Your task to perform on an android device: set the stopwatch Image 0: 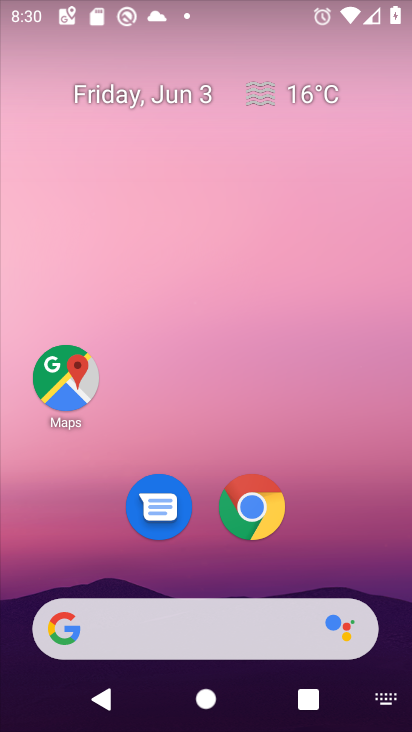
Step 0: drag from (345, 542) to (150, 35)
Your task to perform on an android device: set the stopwatch Image 1: 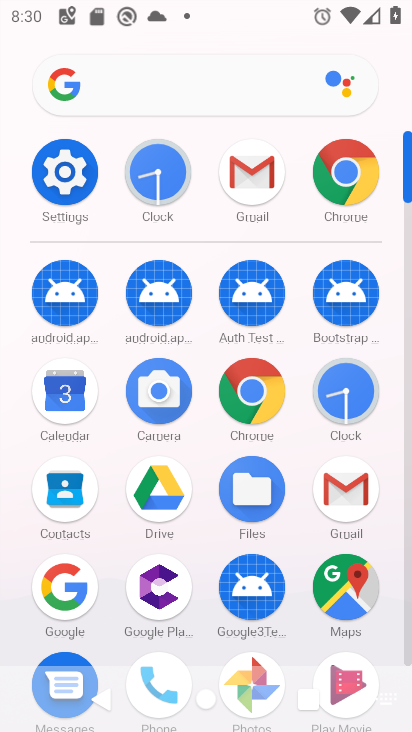
Step 1: click (79, 176)
Your task to perform on an android device: set the stopwatch Image 2: 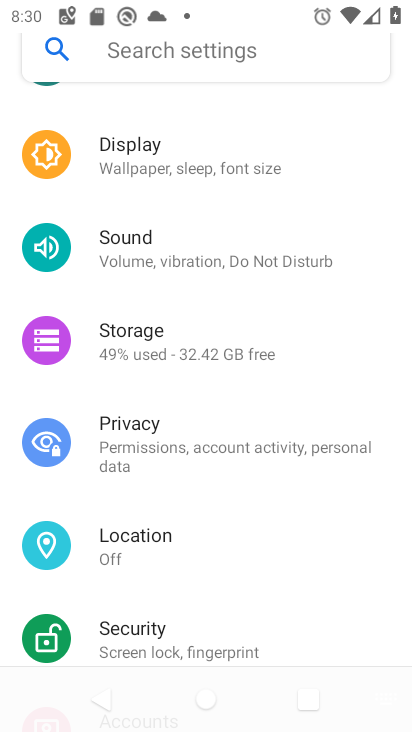
Step 2: press back button
Your task to perform on an android device: set the stopwatch Image 3: 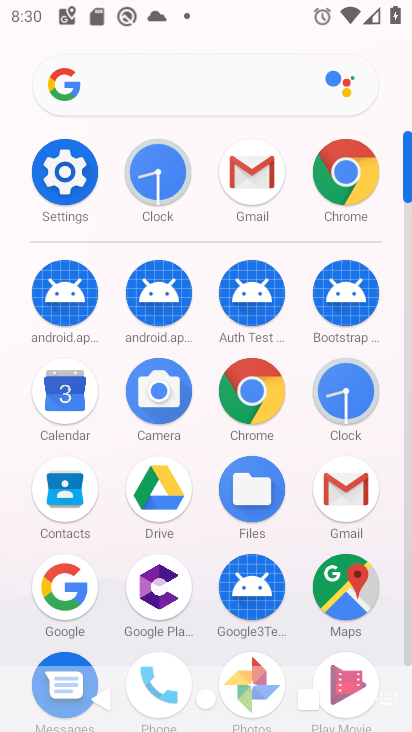
Step 3: click (155, 182)
Your task to perform on an android device: set the stopwatch Image 4: 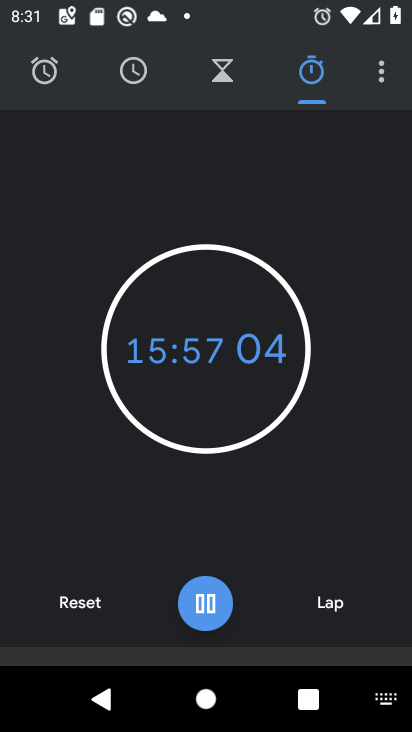
Step 4: click (88, 552)
Your task to perform on an android device: set the stopwatch Image 5: 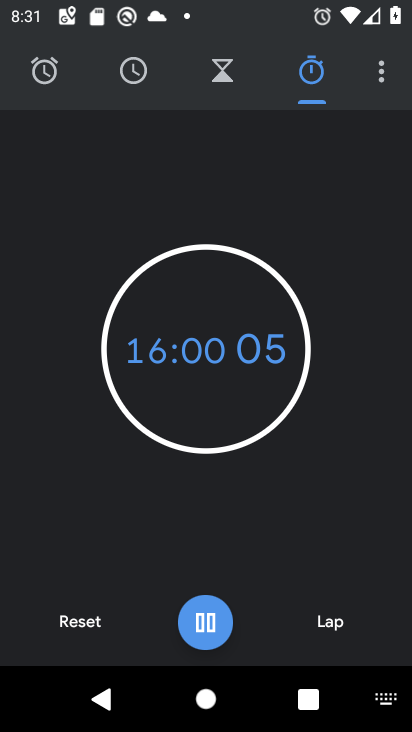
Step 5: click (92, 628)
Your task to perform on an android device: set the stopwatch Image 6: 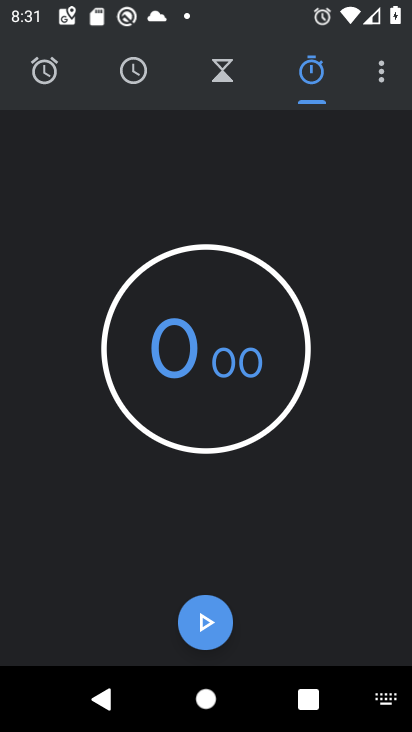
Step 6: click (201, 619)
Your task to perform on an android device: set the stopwatch Image 7: 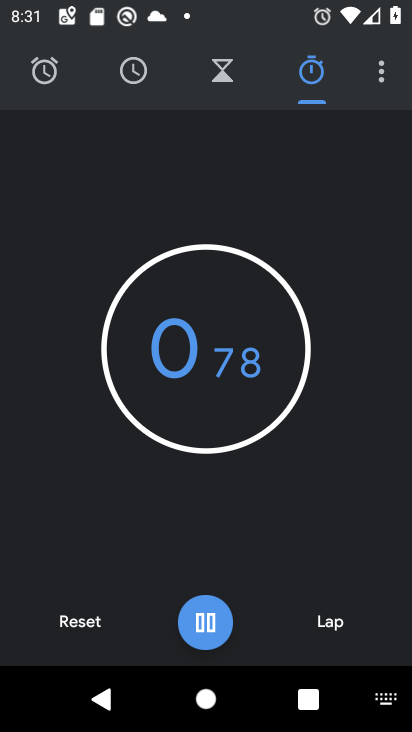
Step 7: task complete